Your task to perform on an android device: open chrome privacy settings Image 0: 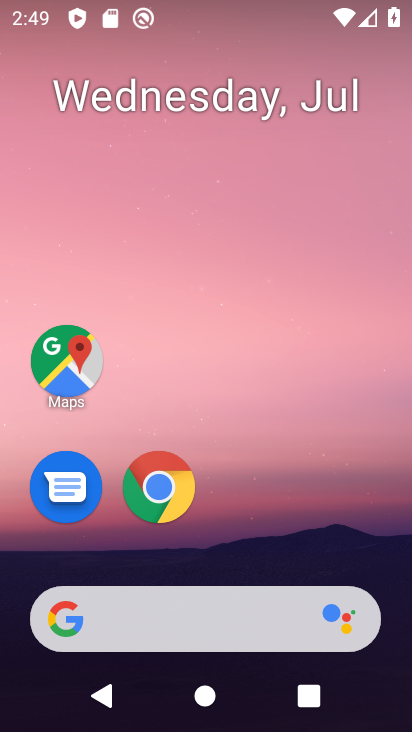
Step 0: click (155, 471)
Your task to perform on an android device: open chrome privacy settings Image 1: 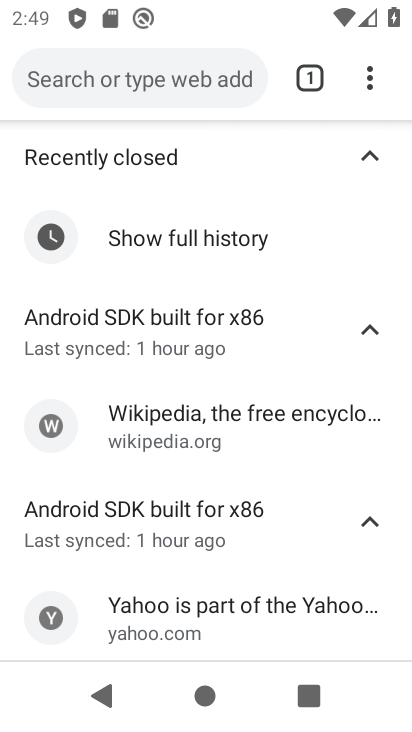
Step 1: click (370, 101)
Your task to perform on an android device: open chrome privacy settings Image 2: 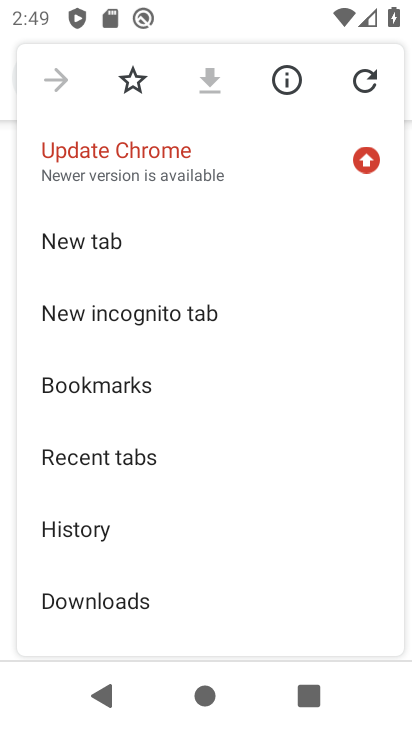
Step 2: drag from (230, 336) to (237, 260)
Your task to perform on an android device: open chrome privacy settings Image 3: 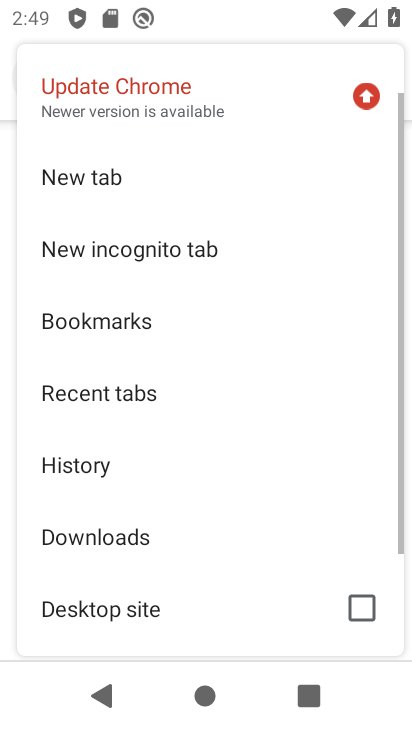
Step 3: drag from (155, 225) to (238, 199)
Your task to perform on an android device: open chrome privacy settings Image 4: 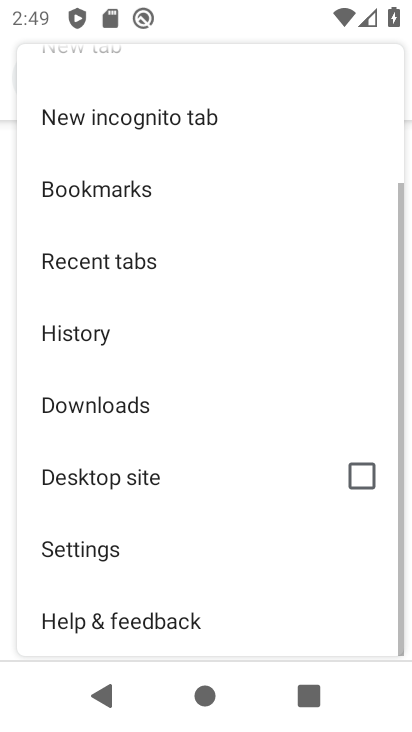
Step 4: drag from (229, 602) to (188, 299)
Your task to perform on an android device: open chrome privacy settings Image 5: 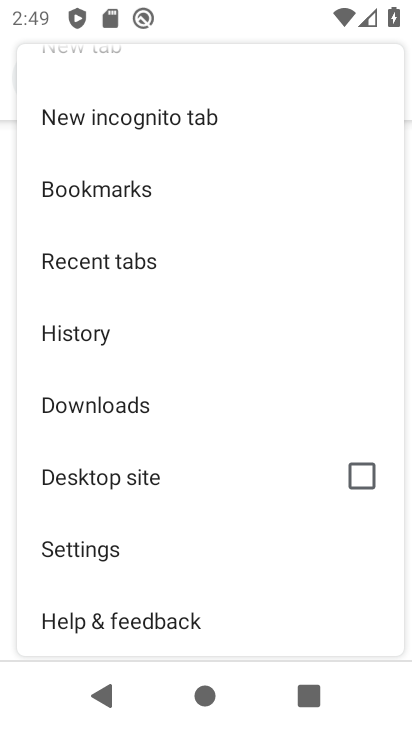
Step 5: click (253, 567)
Your task to perform on an android device: open chrome privacy settings Image 6: 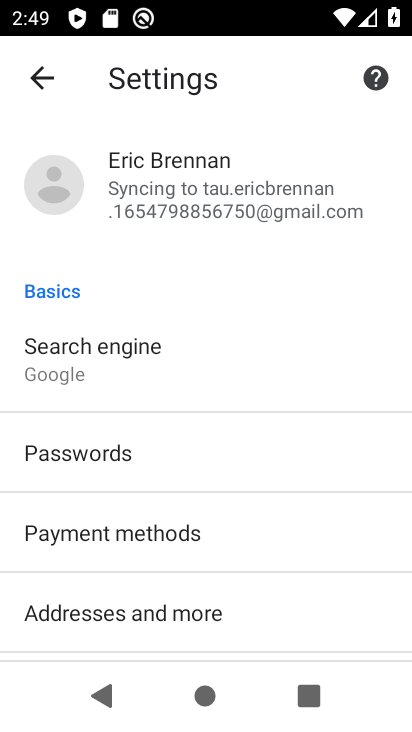
Step 6: drag from (269, 593) to (241, 271)
Your task to perform on an android device: open chrome privacy settings Image 7: 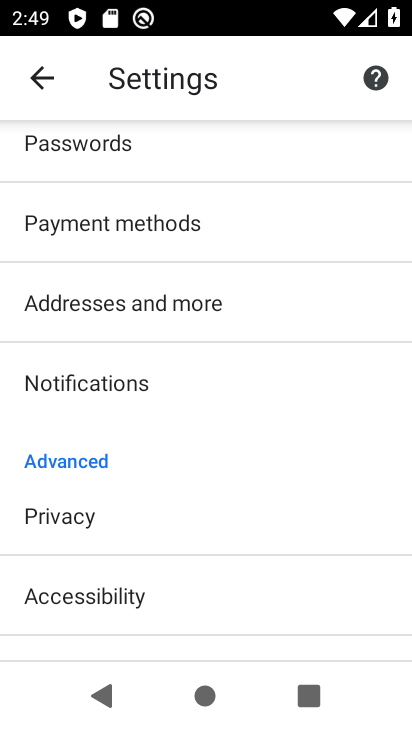
Step 7: click (158, 522)
Your task to perform on an android device: open chrome privacy settings Image 8: 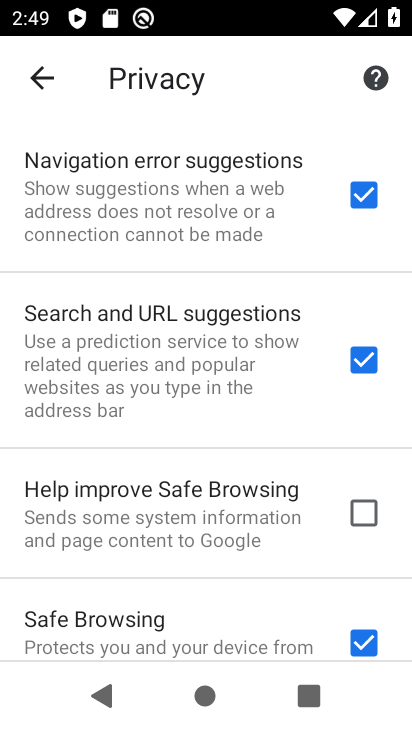
Step 8: task complete